Your task to perform on an android device: change your default location settings in chrome Image 0: 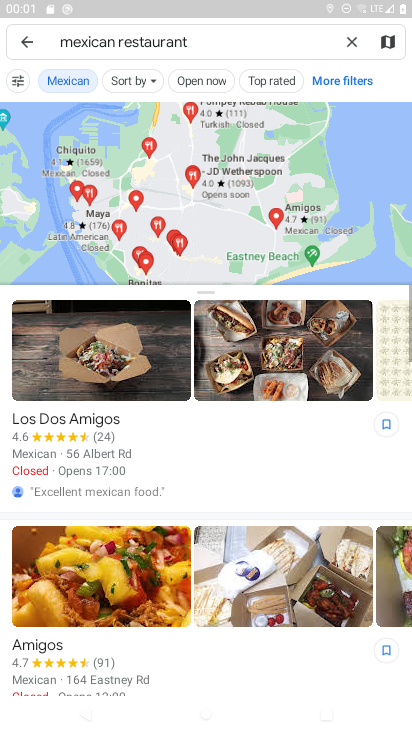
Step 0: press home button
Your task to perform on an android device: change your default location settings in chrome Image 1: 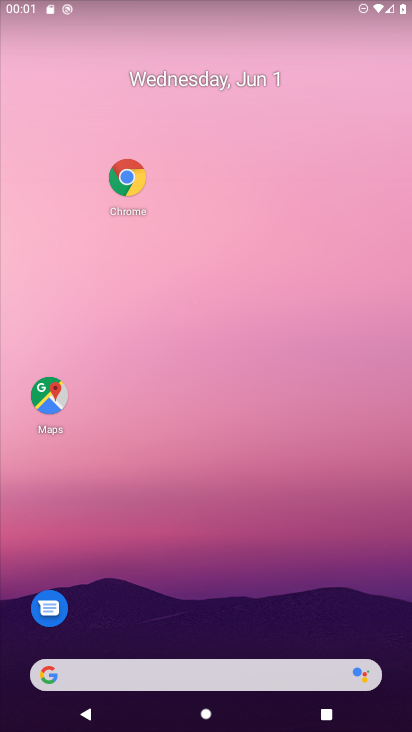
Step 1: drag from (398, 673) to (359, 218)
Your task to perform on an android device: change your default location settings in chrome Image 2: 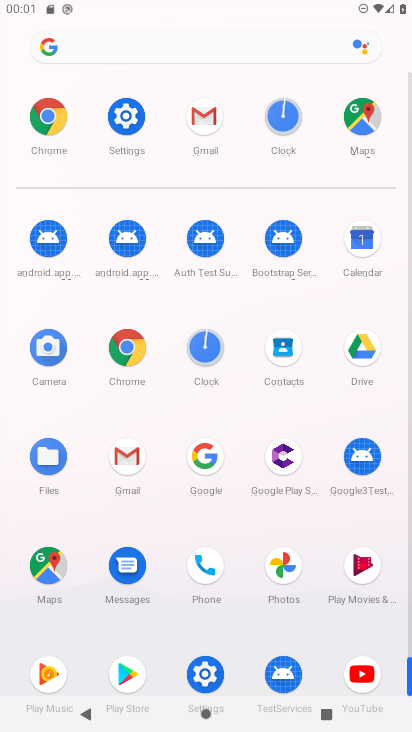
Step 2: drag from (169, 467) to (182, 169)
Your task to perform on an android device: change your default location settings in chrome Image 3: 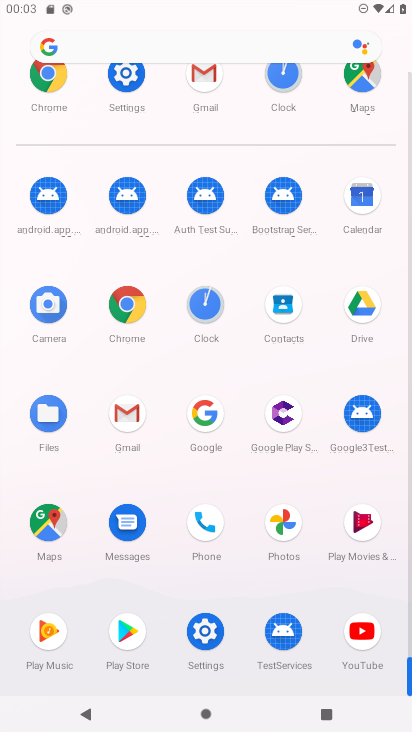
Step 3: click (133, 294)
Your task to perform on an android device: change your default location settings in chrome Image 4: 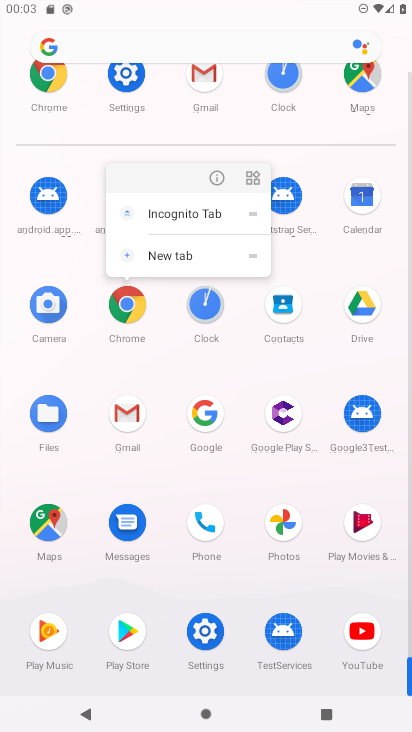
Step 4: click (133, 294)
Your task to perform on an android device: change your default location settings in chrome Image 5: 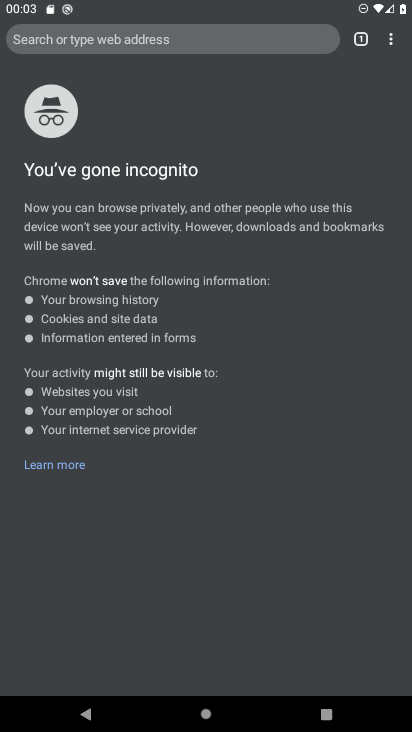
Step 5: drag from (387, 38) to (246, 288)
Your task to perform on an android device: change your default location settings in chrome Image 6: 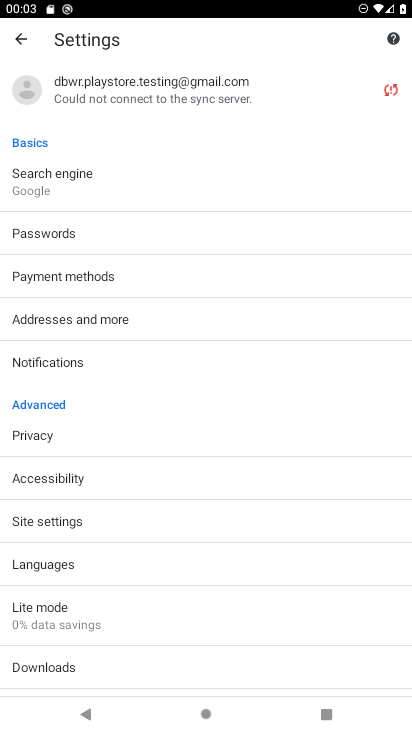
Step 6: click (79, 519)
Your task to perform on an android device: change your default location settings in chrome Image 7: 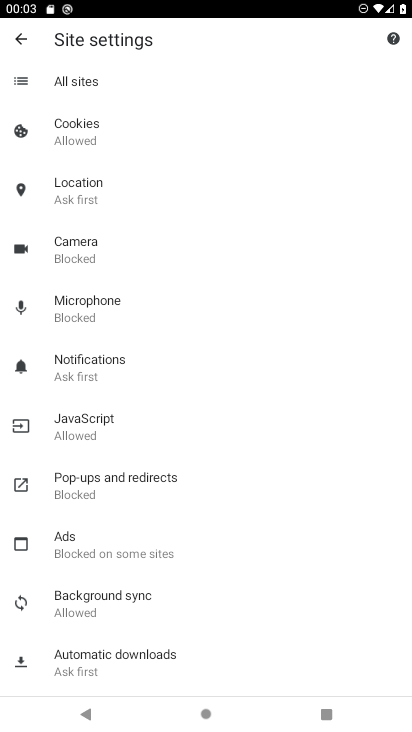
Step 7: click (81, 195)
Your task to perform on an android device: change your default location settings in chrome Image 8: 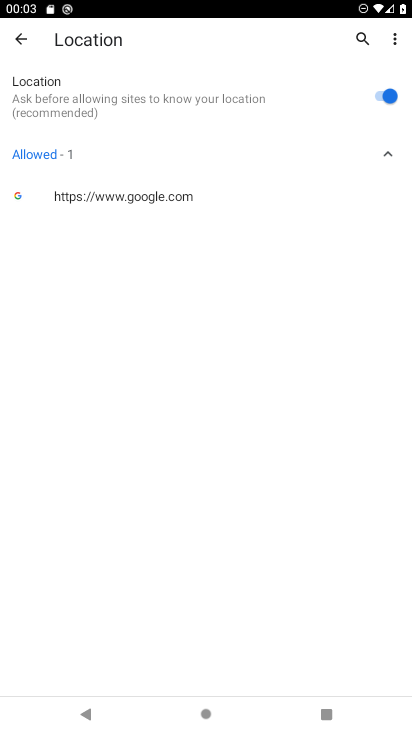
Step 8: click (32, 40)
Your task to perform on an android device: change your default location settings in chrome Image 9: 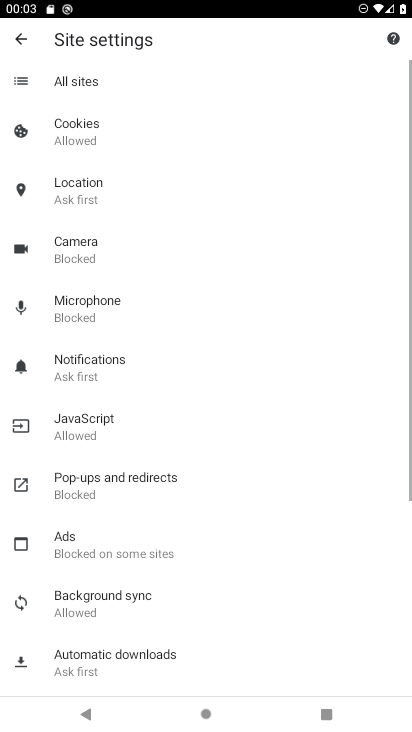
Step 9: click (69, 84)
Your task to perform on an android device: change your default location settings in chrome Image 10: 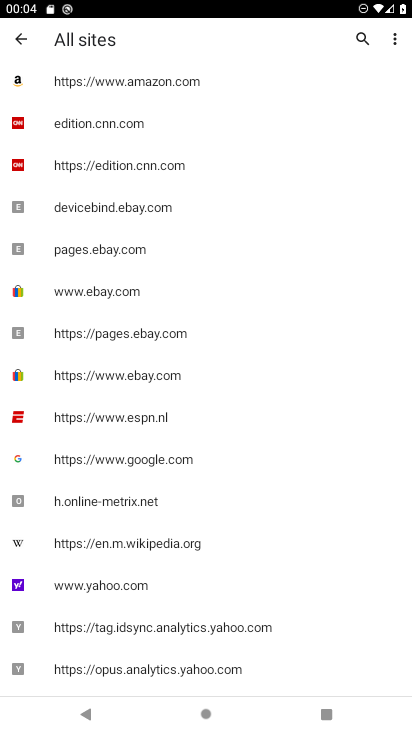
Step 10: click (99, 462)
Your task to perform on an android device: change your default location settings in chrome Image 11: 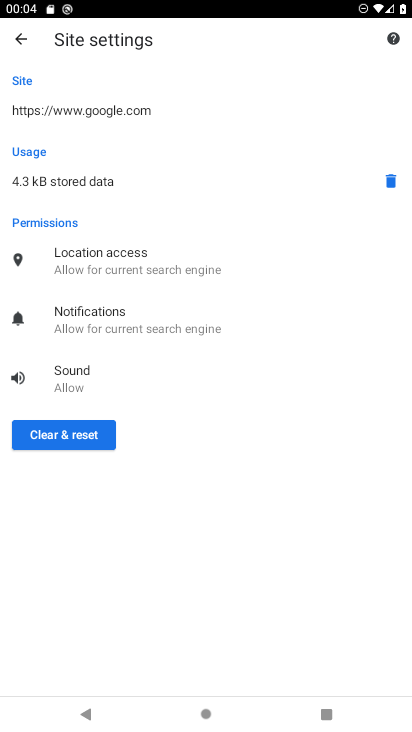
Step 11: click (108, 270)
Your task to perform on an android device: change your default location settings in chrome Image 12: 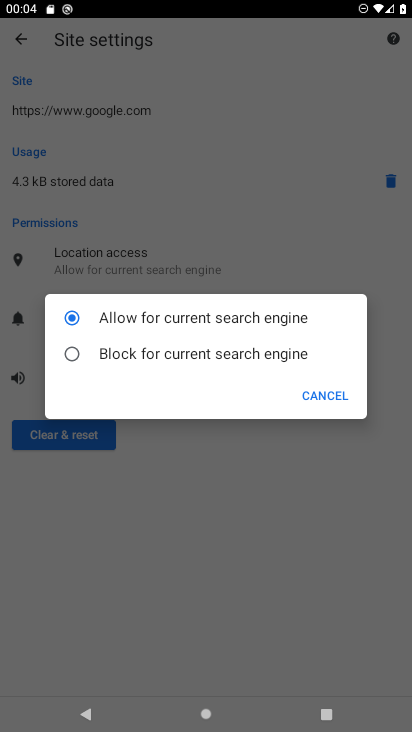
Step 12: click (140, 318)
Your task to perform on an android device: change your default location settings in chrome Image 13: 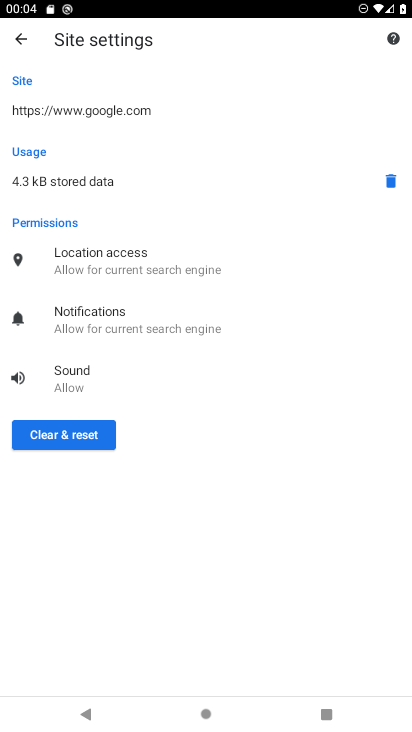
Step 13: click (20, 35)
Your task to perform on an android device: change your default location settings in chrome Image 14: 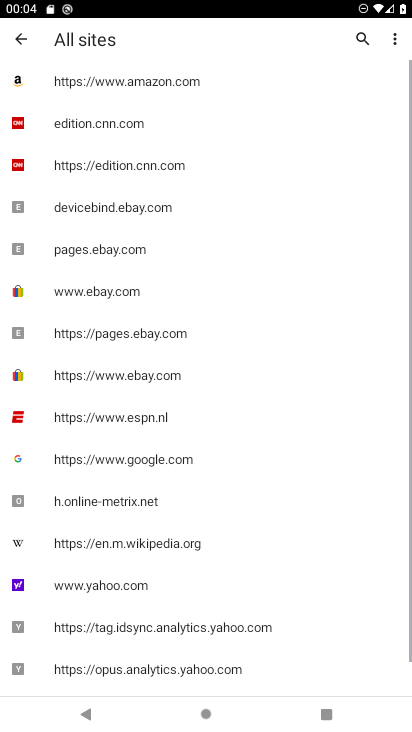
Step 14: click (22, 37)
Your task to perform on an android device: change your default location settings in chrome Image 15: 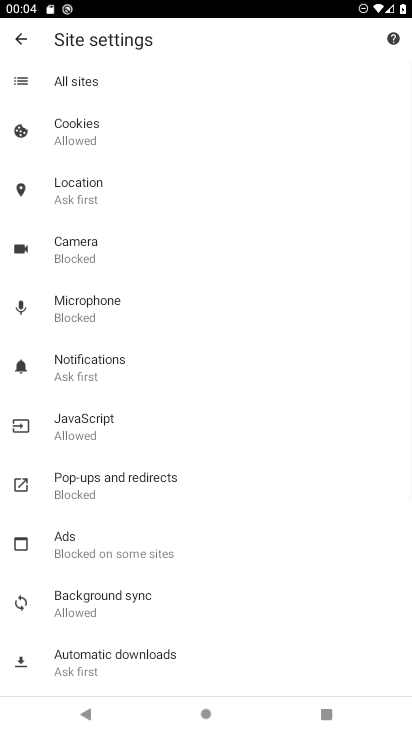
Step 15: click (109, 184)
Your task to perform on an android device: change your default location settings in chrome Image 16: 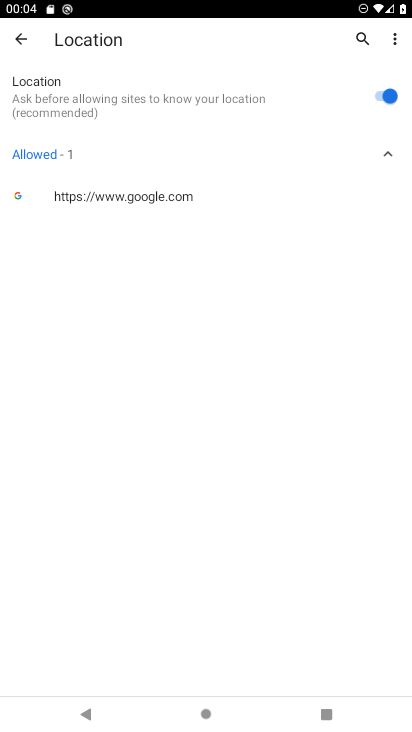
Step 16: task complete